Your task to perform on an android device: Open calendar and show me the first week of next month Image 0: 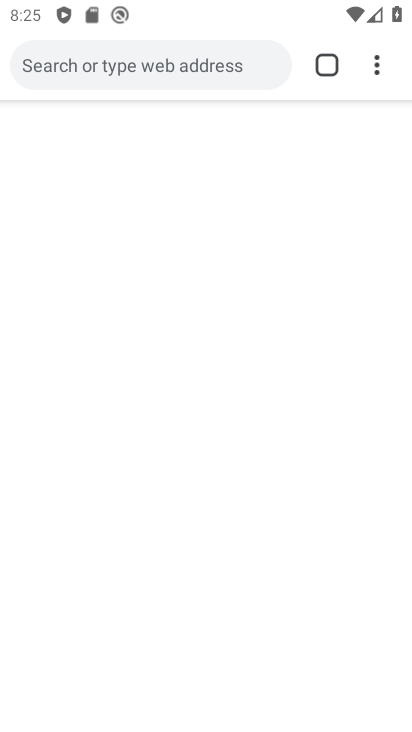
Step 0: click (316, 12)
Your task to perform on an android device: Open calendar and show me the first week of next month Image 1: 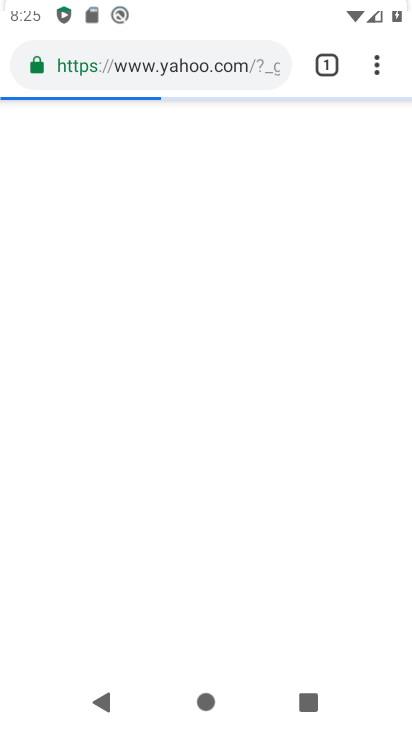
Step 1: press back button
Your task to perform on an android device: Open calendar and show me the first week of next month Image 2: 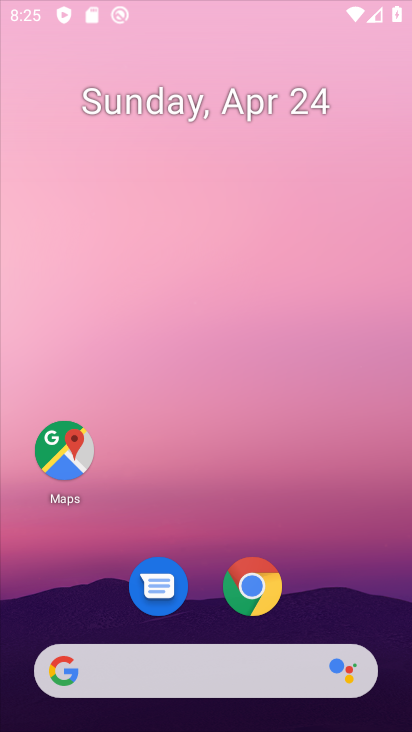
Step 2: press back button
Your task to perform on an android device: Open calendar and show me the first week of next month Image 3: 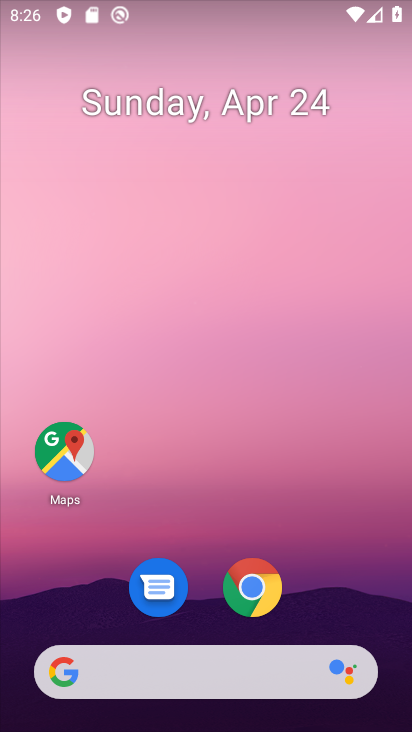
Step 3: drag from (255, 253) to (280, 22)
Your task to perform on an android device: Open calendar and show me the first week of next month Image 4: 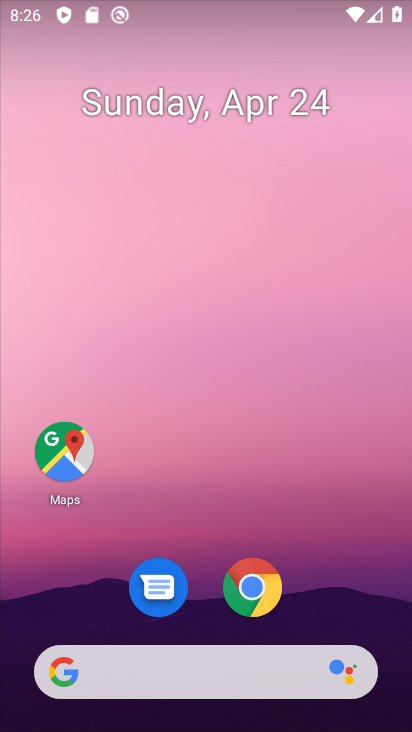
Step 4: drag from (211, 565) to (277, 2)
Your task to perform on an android device: Open calendar and show me the first week of next month Image 5: 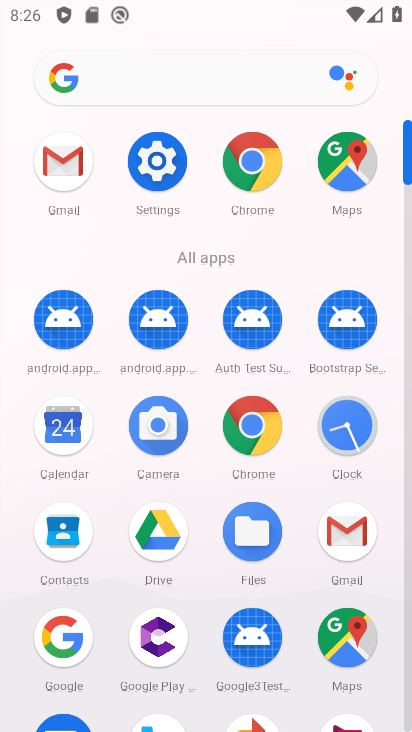
Step 5: click (63, 439)
Your task to perform on an android device: Open calendar and show me the first week of next month Image 6: 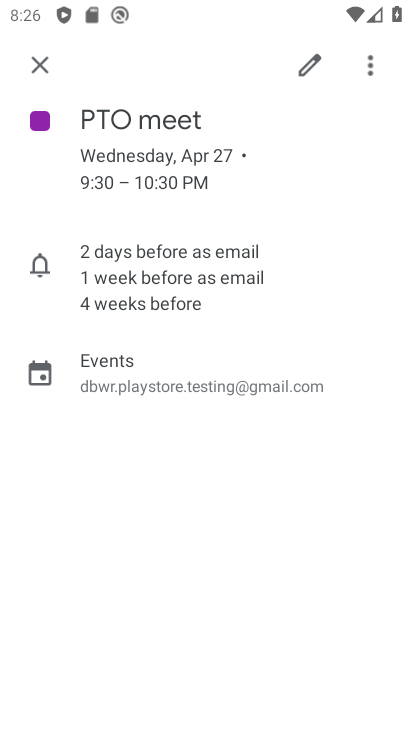
Step 6: click (38, 56)
Your task to perform on an android device: Open calendar and show me the first week of next month Image 7: 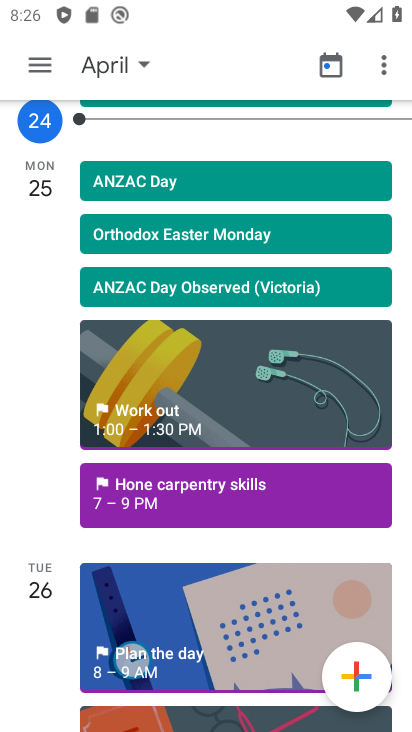
Step 7: click (145, 63)
Your task to perform on an android device: Open calendar and show me the first week of next month Image 8: 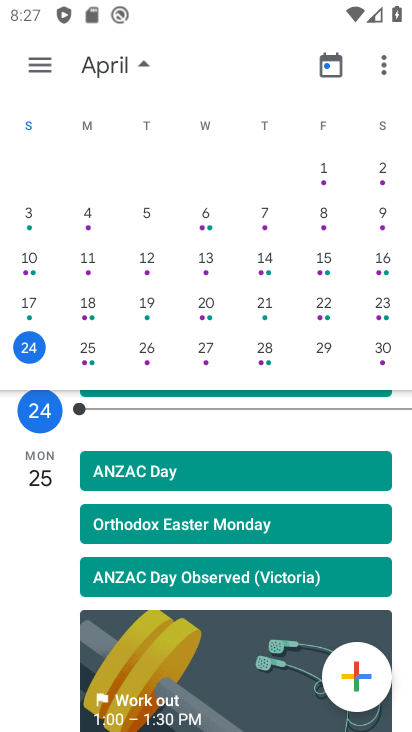
Step 8: drag from (389, 278) to (1, 279)
Your task to perform on an android device: Open calendar and show me the first week of next month Image 9: 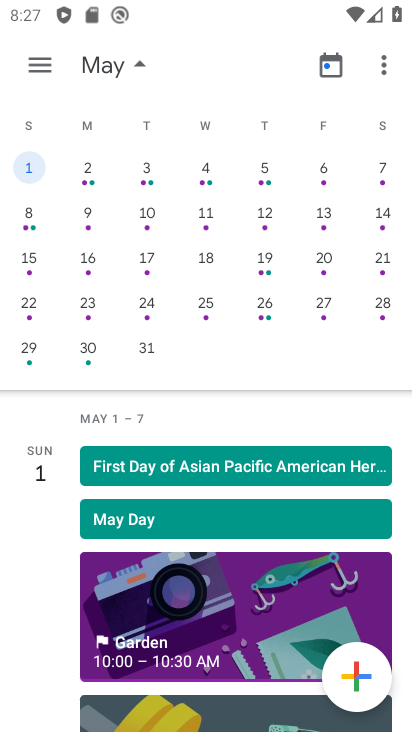
Step 9: click (87, 169)
Your task to perform on an android device: Open calendar and show me the first week of next month Image 10: 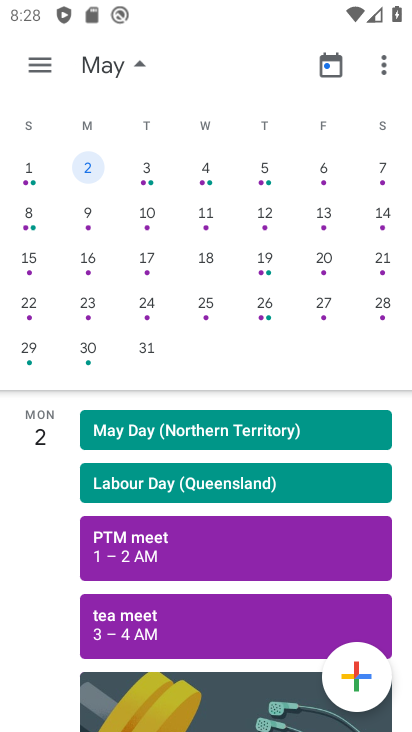
Step 10: task complete